Your task to perform on an android device: What's on my calendar tomorrow? Image 0: 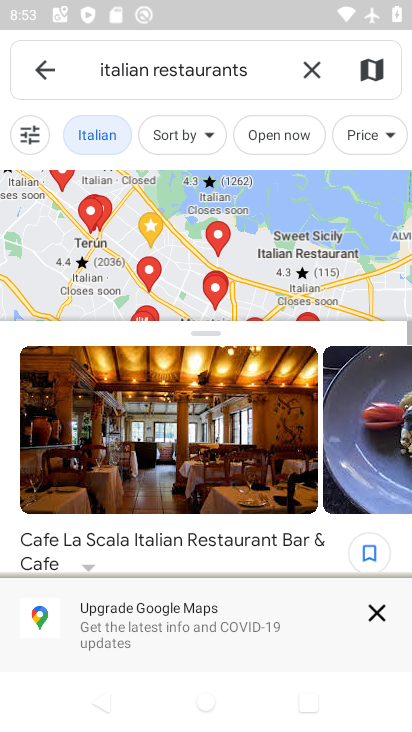
Step 0: press home button
Your task to perform on an android device: What's on my calendar tomorrow? Image 1: 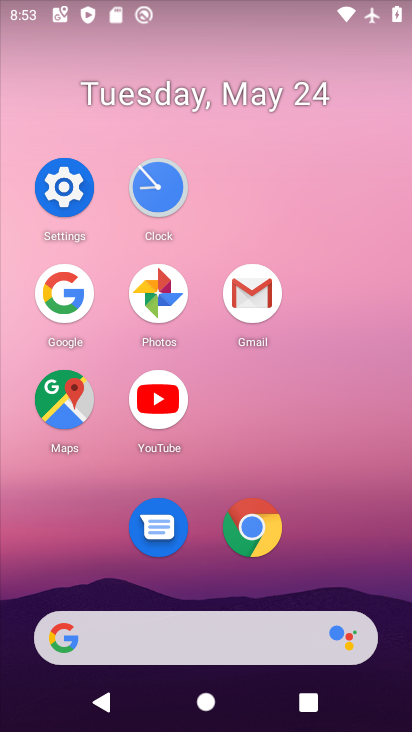
Step 1: click (264, 537)
Your task to perform on an android device: What's on my calendar tomorrow? Image 2: 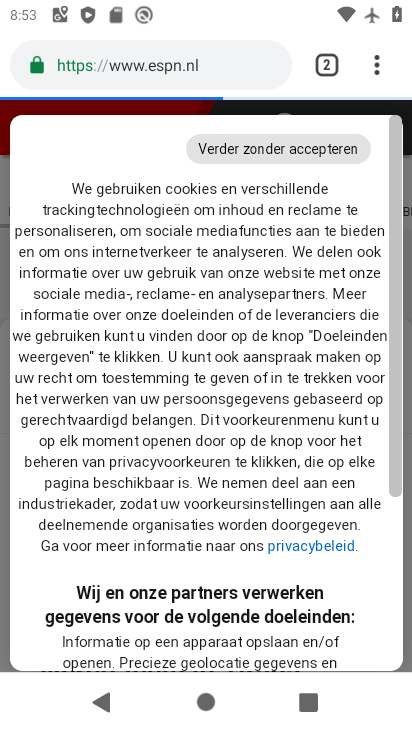
Step 2: press home button
Your task to perform on an android device: What's on my calendar tomorrow? Image 3: 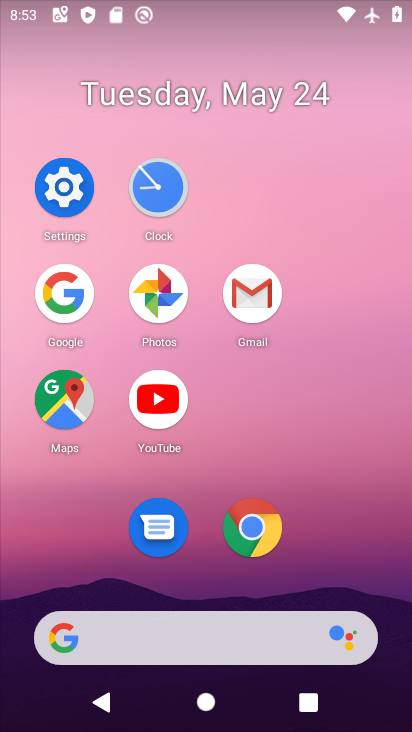
Step 3: drag from (354, 548) to (410, 100)
Your task to perform on an android device: What's on my calendar tomorrow? Image 4: 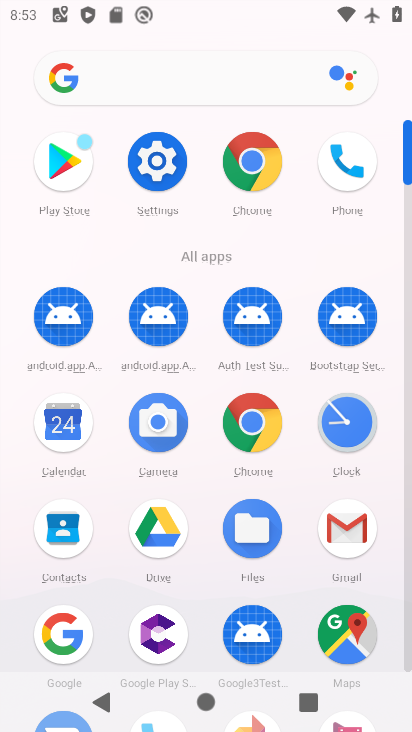
Step 4: drag from (75, 422) to (227, 218)
Your task to perform on an android device: What's on my calendar tomorrow? Image 5: 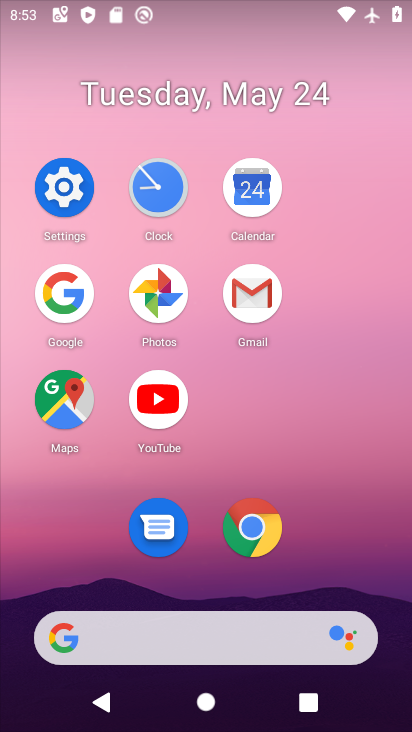
Step 5: click (252, 183)
Your task to perform on an android device: What's on my calendar tomorrow? Image 6: 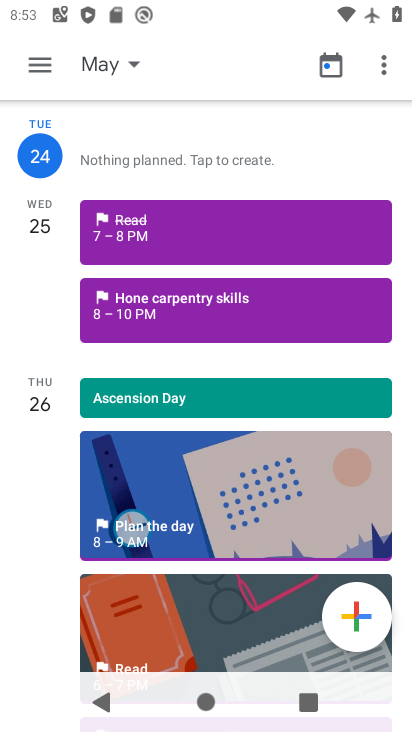
Step 6: click (32, 226)
Your task to perform on an android device: What's on my calendar tomorrow? Image 7: 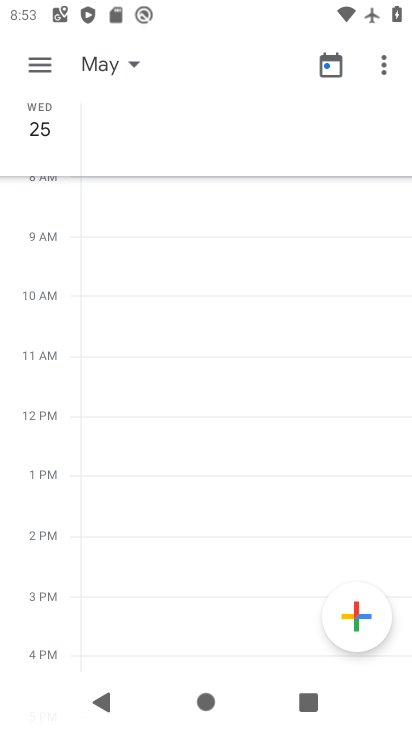
Step 7: click (60, 134)
Your task to perform on an android device: What's on my calendar tomorrow? Image 8: 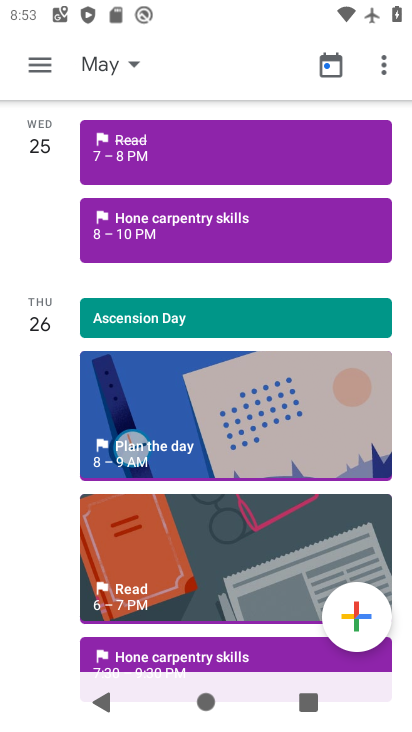
Step 8: task complete